Your task to perform on an android device: turn notification dots off Image 0: 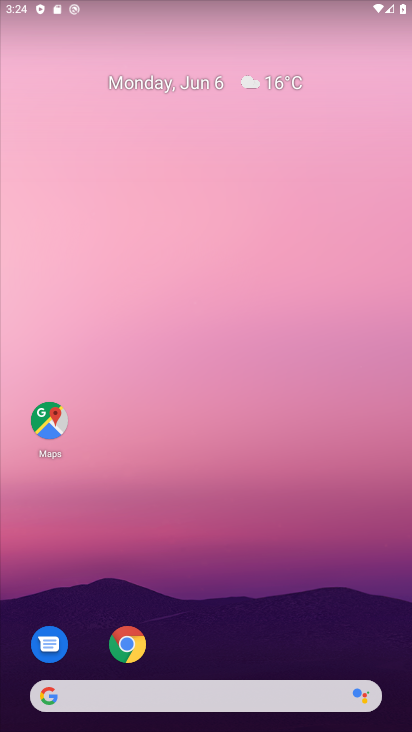
Step 0: drag from (308, 635) to (338, 66)
Your task to perform on an android device: turn notification dots off Image 1: 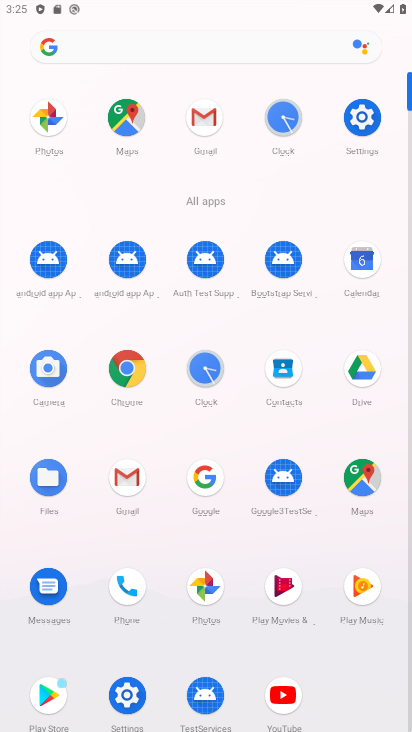
Step 1: click (359, 118)
Your task to perform on an android device: turn notification dots off Image 2: 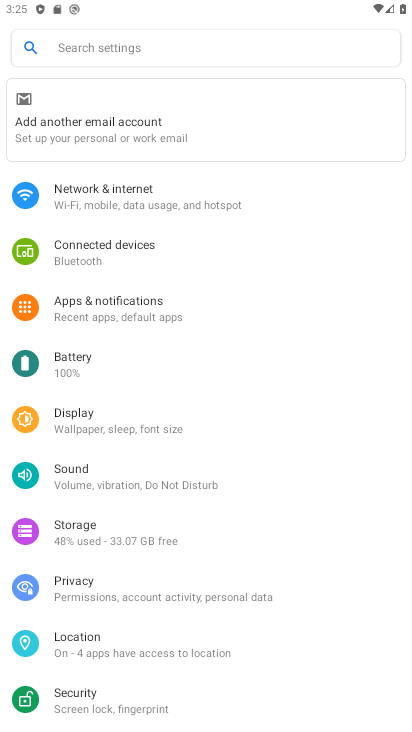
Step 2: click (124, 313)
Your task to perform on an android device: turn notification dots off Image 3: 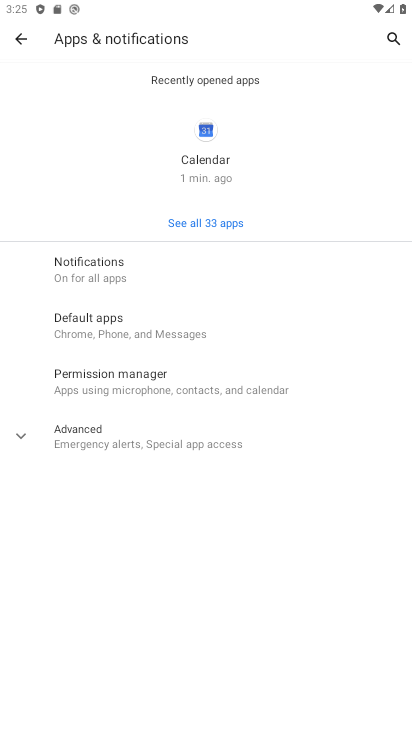
Step 3: click (105, 272)
Your task to perform on an android device: turn notification dots off Image 4: 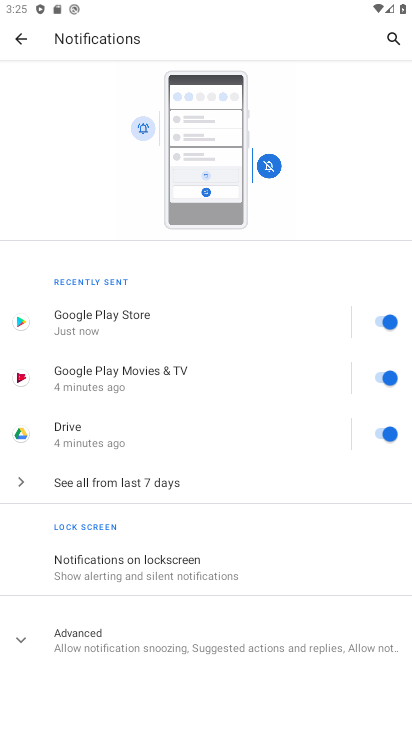
Step 4: click (114, 642)
Your task to perform on an android device: turn notification dots off Image 5: 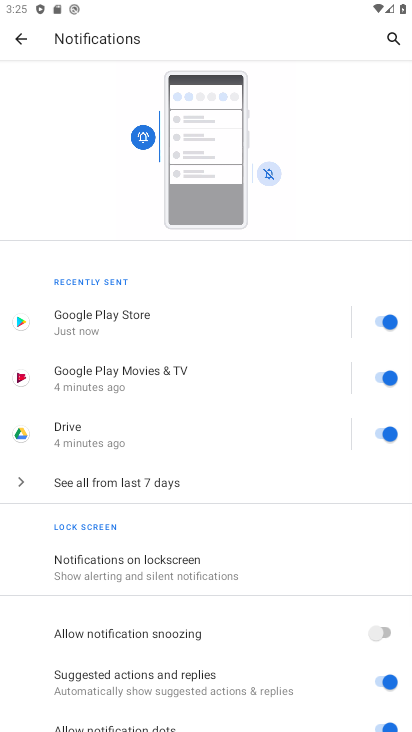
Step 5: drag from (166, 624) to (276, 410)
Your task to perform on an android device: turn notification dots off Image 6: 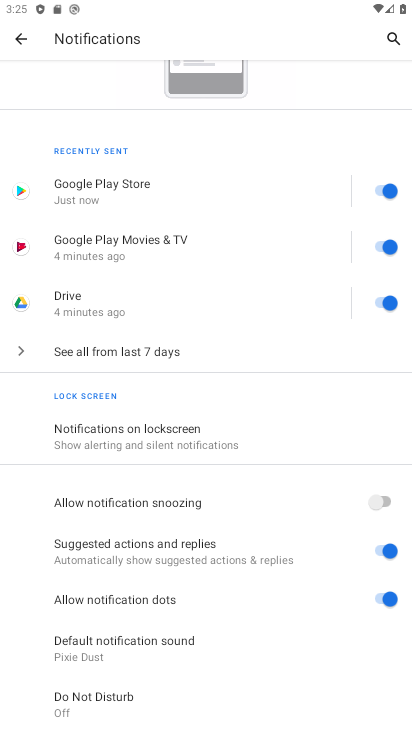
Step 6: click (384, 600)
Your task to perform on an android device: turn notification dots off Image 7: 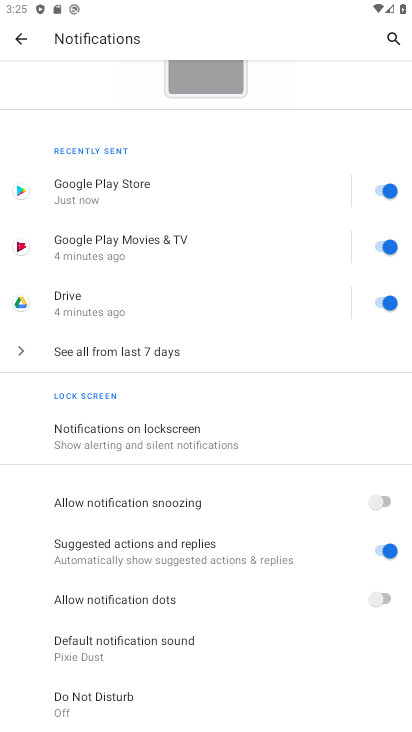
Step 7: task complete